Your task to perform on an android device: turn off wifi Image 0: 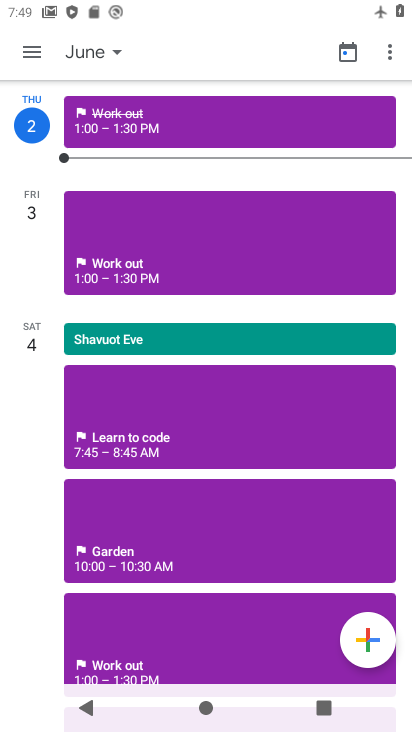
Step 0: press back button
Your task to perform on an android device: turn off wifi Image 1: 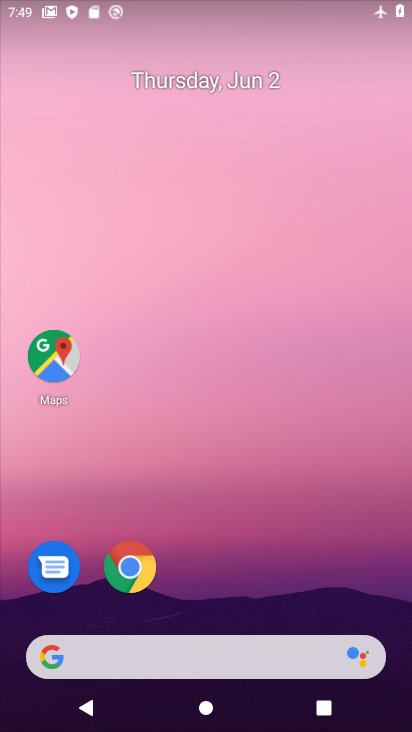
Step 1: drag from (278, 557) to (242, 79)
Your task to perform on an android device: turn off wifi Image 2: 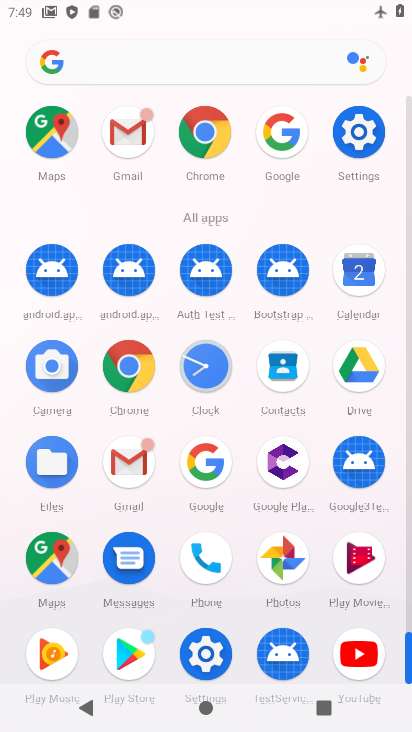
Step 2: click (358, 131)
Your task to perform on an android device: turn off wifi Image 3: 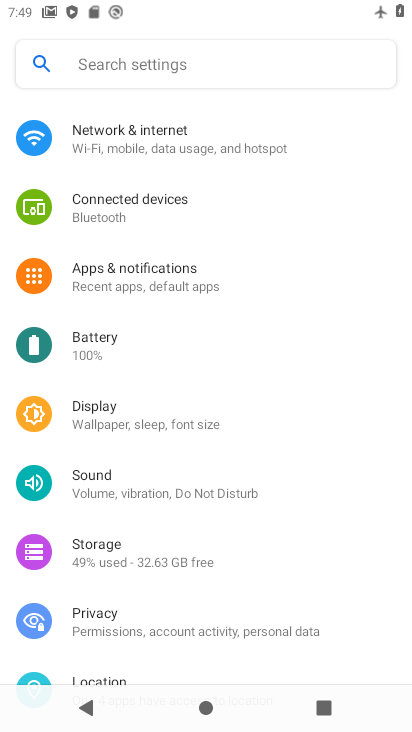
Step 3: click (210, 144)
Your task to perform on an android device: turn off wifi Image 4: 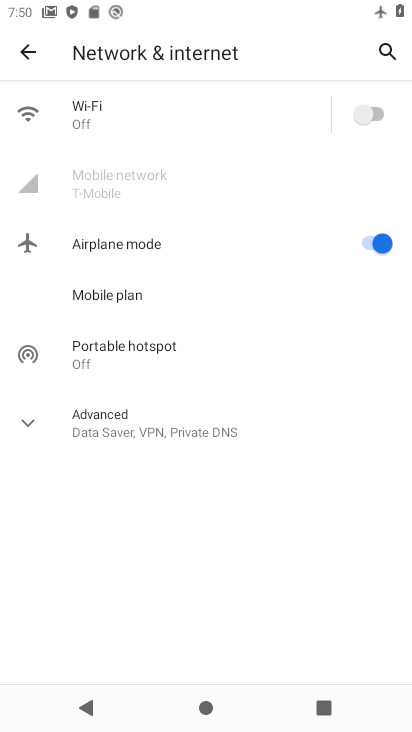
Step 4: task complete